Your task to perform on an android device: snooze an email in the gmail app Image 0: 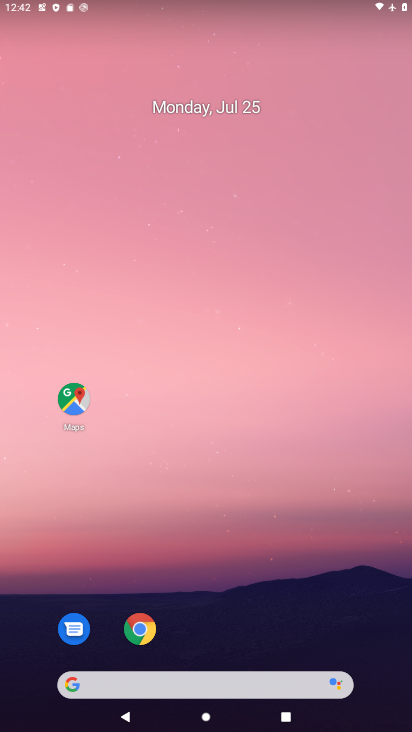
Step 0: drag from (234, 659) to (263, 42)
Your task to perform on an android device: snooze an email in the gmail app Image 1: 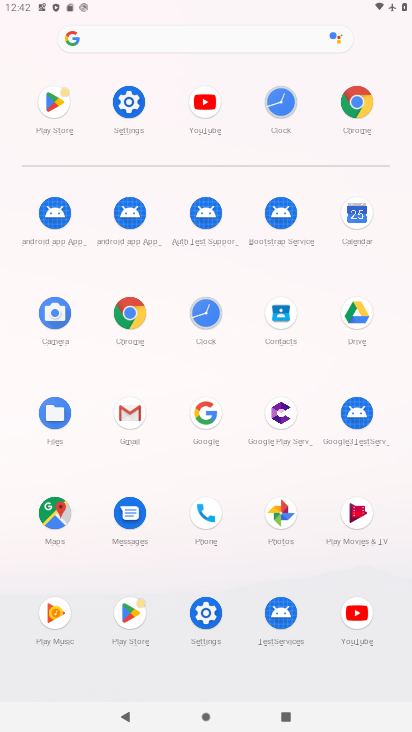
Step 1: click (126, 412)
Your task to perform on an android device: snooze an email in the gmail app Image 2: 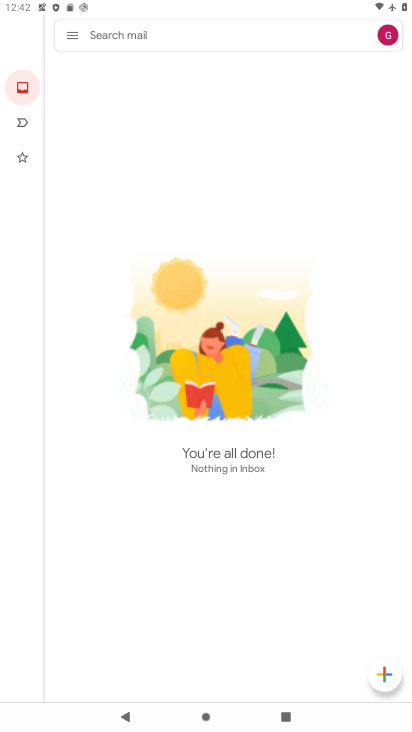
Step 2: task complete